Your task to perform on an android device: Open accessibility settings Image 0: 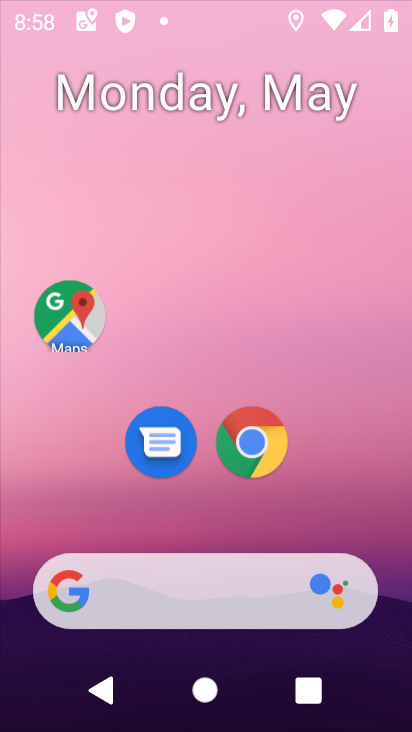
Step 0: press home button
Your task to perform on an android device: Open accessibility settings Image 1: 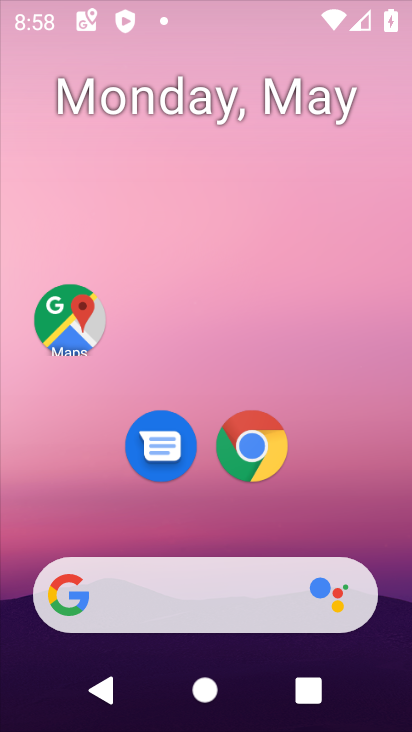
Step 1: drag from (219, 109) to (222, 59)
Your task to perform on an android device: Open accessibility settings Image 2: 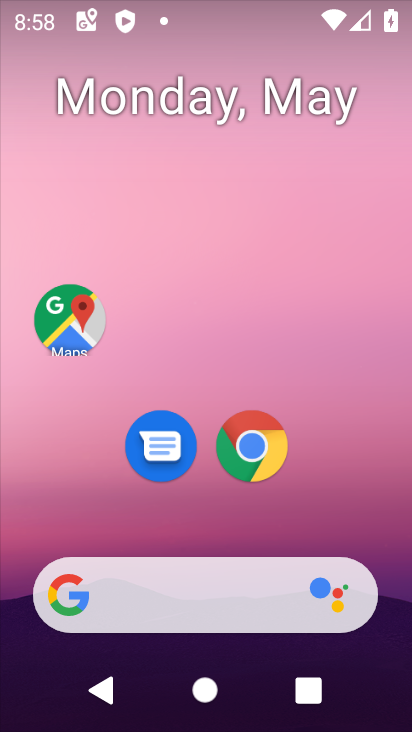
Step 2: drag from (211, 509) to (228, 98)
Your task to perform on an android device: Open accessibility settings Image 3: 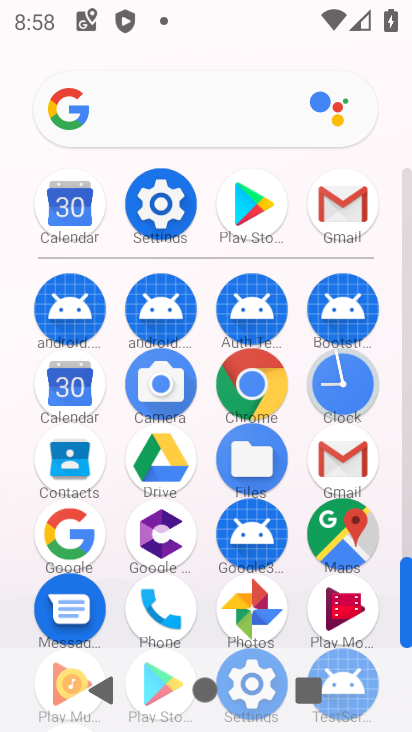
Step 3: click (157, 198)
Your task to perform on an android device: Open accessibility settings Image 4: 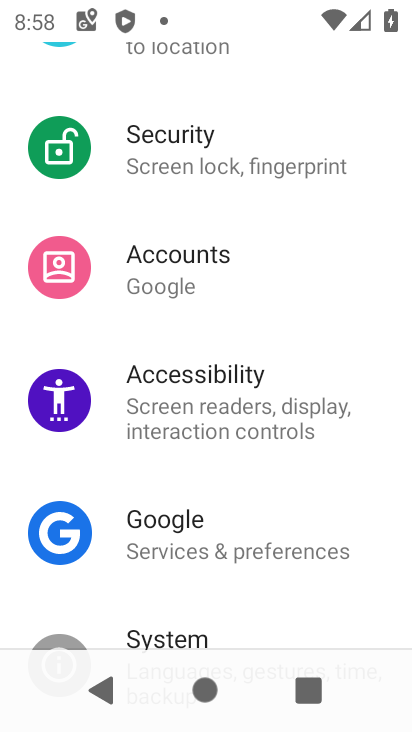
Step 4: click (109, 381)
Your task to perform on an android device: Open accessibility settings Image 5: 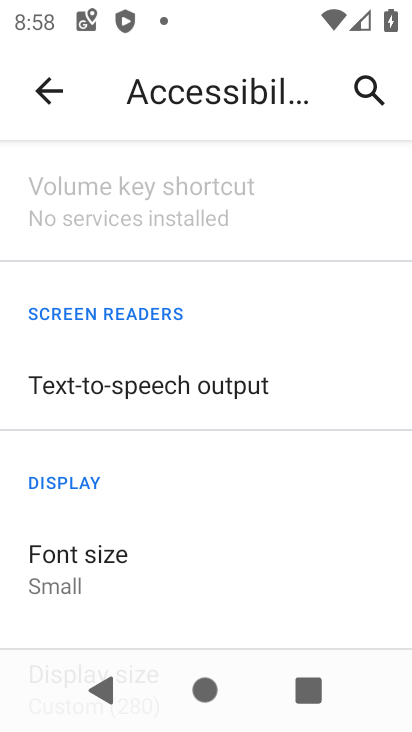
Step 5: task complete